Your task to perform on an android device: turn off translation in the chrome app Image 0: 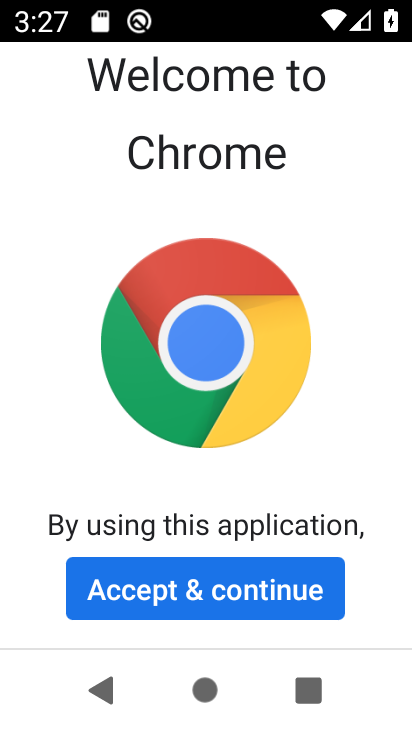
Step 0: click (320, 581)
Your task to perform on an android device: turn off translation in the chrome app Image 1: 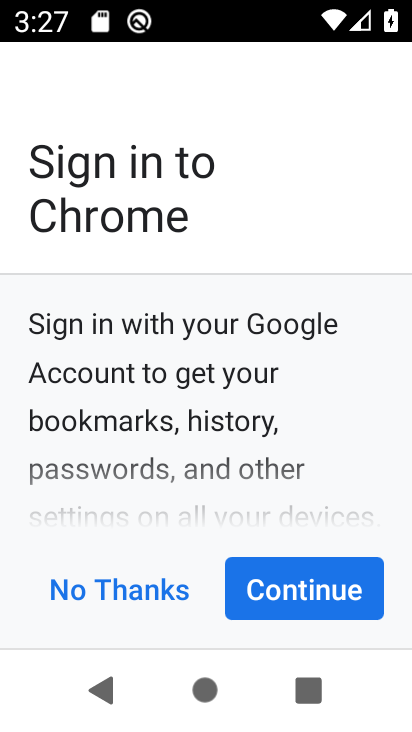
Step 1: click (320, 581)
Your task to perform on an android device: turn off translation in the chrome app Image 2: 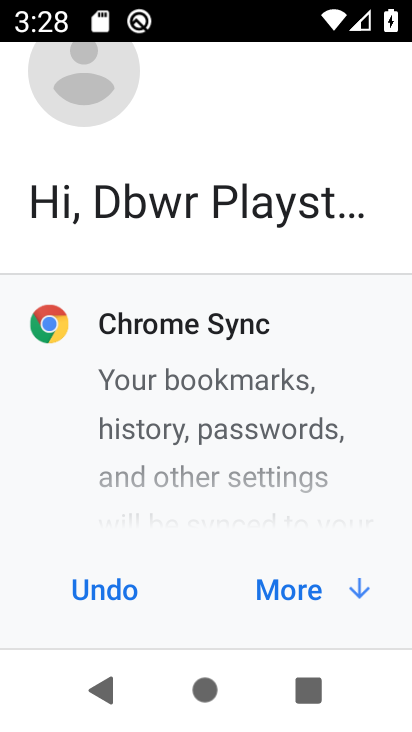
Step 2: click (319, 582)
Your task to perform on an android device: turn off translation in the chrome app Image 3: 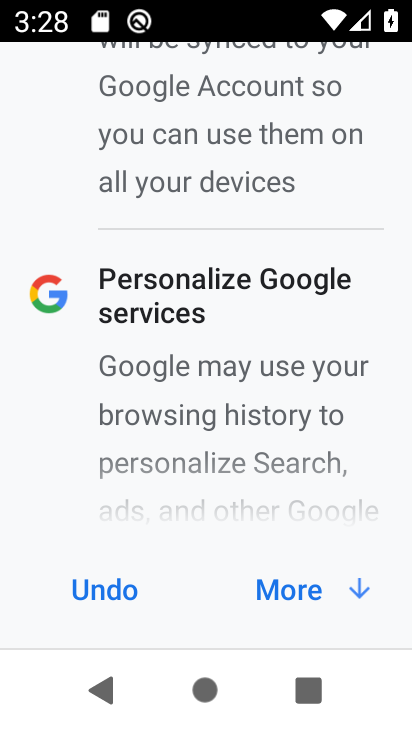
Step 3: click (313, 596)
Your task to perform on an android device: turn off translation in the chrome app Image 4: 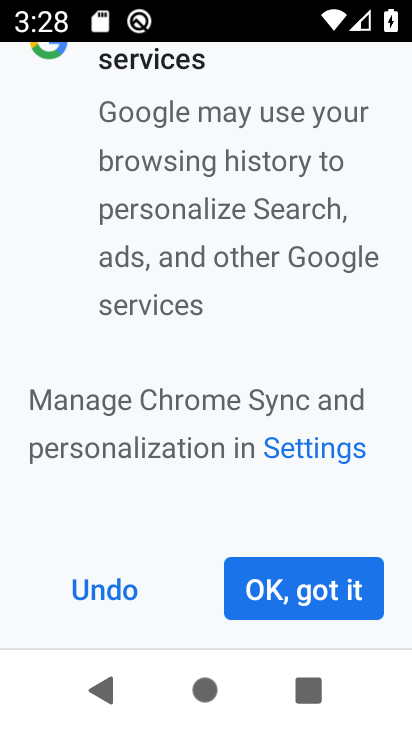
Step 4: click (313, 596)
Your task to perform on an android device: turn off translation in the chrome app Image 5: 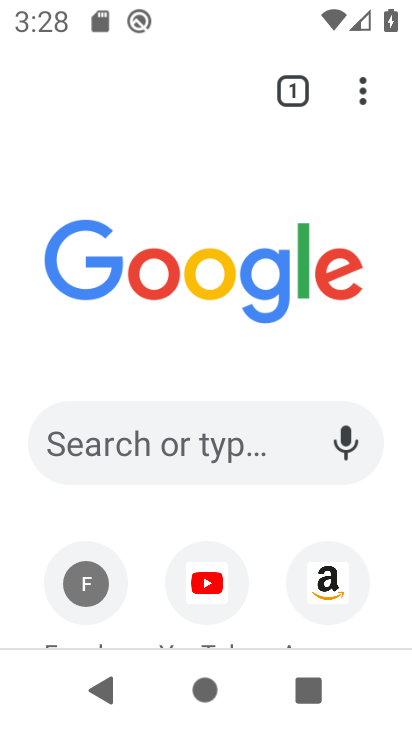
Step 5: click (365, 107)
Your task to perform on an android device: turn off translation in the chrome app Image 6: 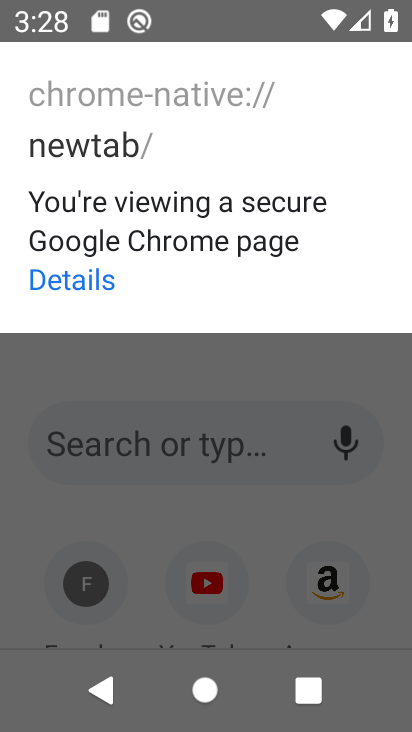
Step 6: press back button
Your task to perform on an android device: turn off translation in the chrome app Image 7: 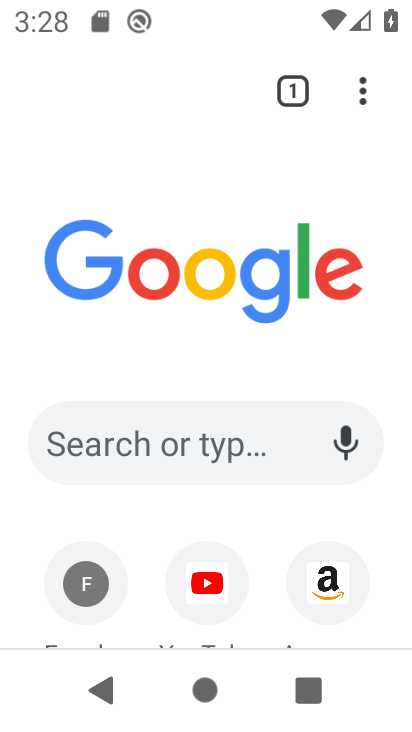
Step 7: click (356, 109)
Your task to perform on an android device: turn off translation in the chrome app Image 8: 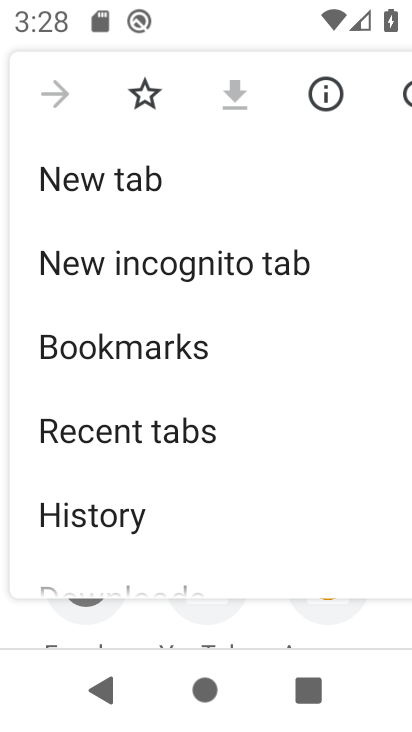
Step 8: drag from (196, 549) to (183, 295)
Your task to perform on an android device: turn off translation in the chrome app Image 9: 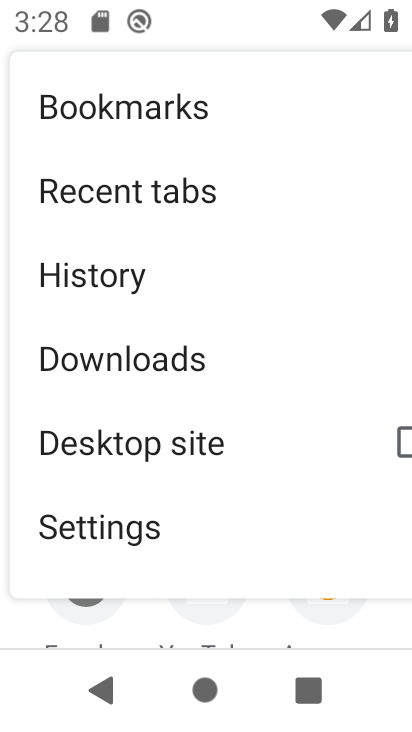
Step 9: click (196, 526)
Your task to perform on an android device: turn off translation in the chrome app Image 10: 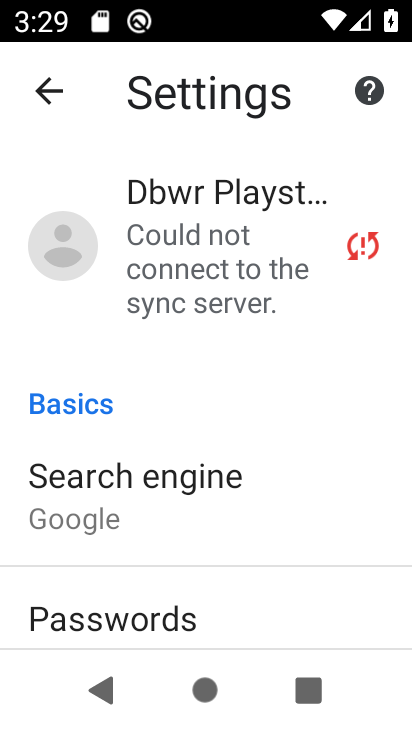
Step 10: drag from (246, 618) to (223, 274)
Your task to perform on an android device: turn off translation in the chrome app Image 11: 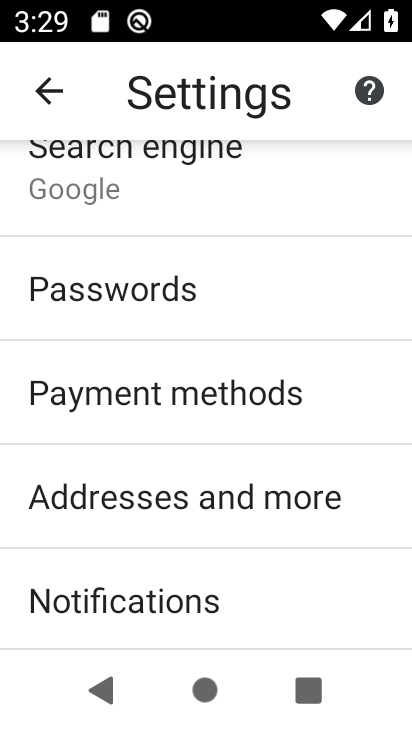
Step 11: drag from (264, 627) to (240, 289)
Your task to perform on an android device: turn off translation in the chrome app Image 12: 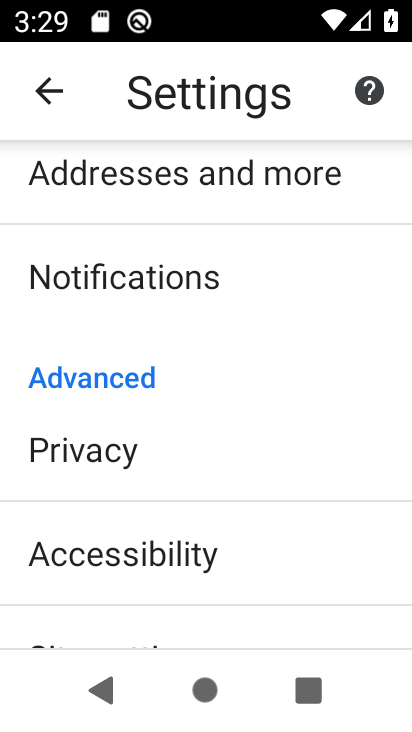
Step 12: drag from (259, 619) to (245, 341)
Your task to perform on an android device: turn off translation in the chrome app Image 13: 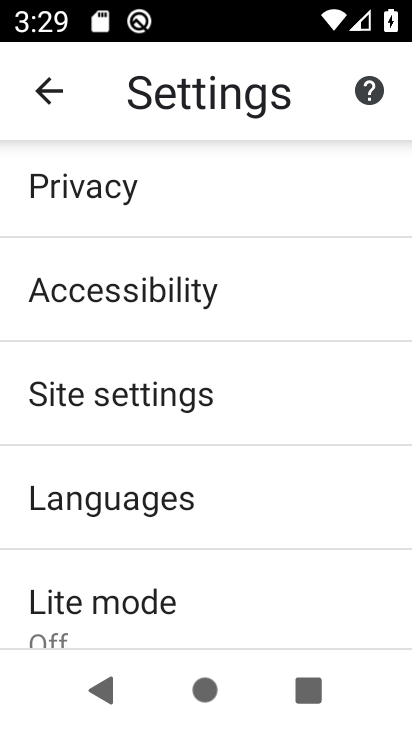
Step 13: click (270, 509)
Your task to perform on an android device: turn off translation in the chrome app Image 14: 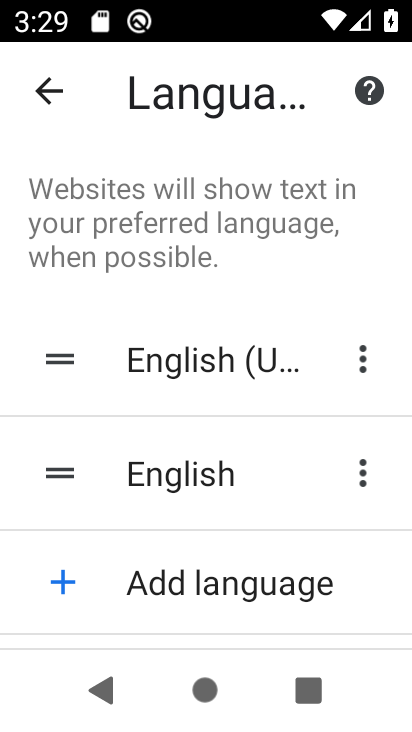
Step 14: drag from (339, 589) to (230, 273)
Your task to perform on an android device: turn off translation in the chrome app Image 15: 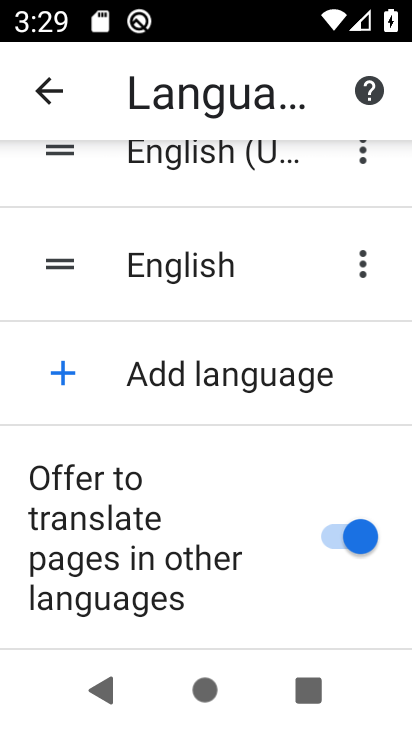
Step 15: click (329, 537)
Your task to perform on an android device: turn off translation in the chrome app Image 16: 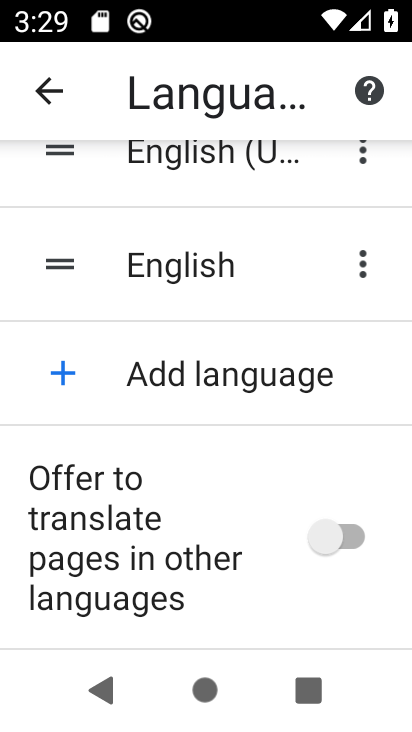
Step 16: task complete